Your task to perform on an android device: What's the latest video from GameXplain? Image 0: 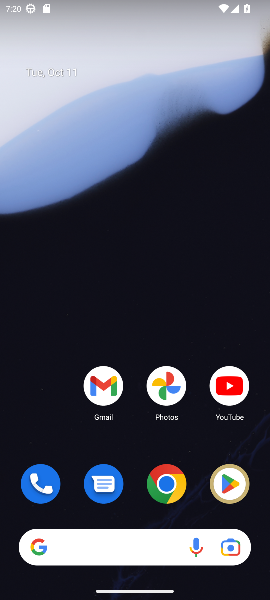
Step 0: click (167, 482)
Your task to perform on an android device: What's the latest video from GameXplain? Image 1: 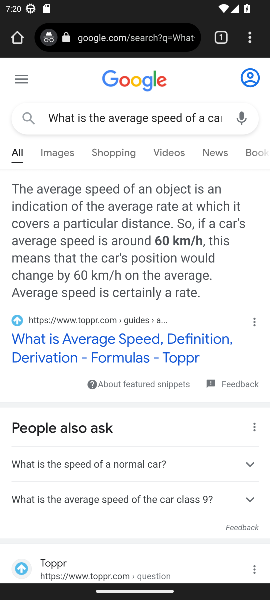
Step 1: click (149, 40)
Your task to perform on an android device: What's the latest video from GameXplain? Image 2: 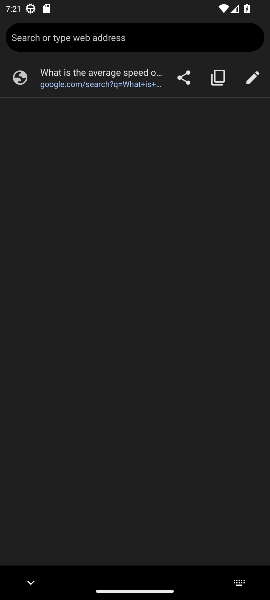
Step 2: type "What's the latest video from GameXplain?"
Your task to perform on an android device: What's the latest video from GameXplain? Image 3: 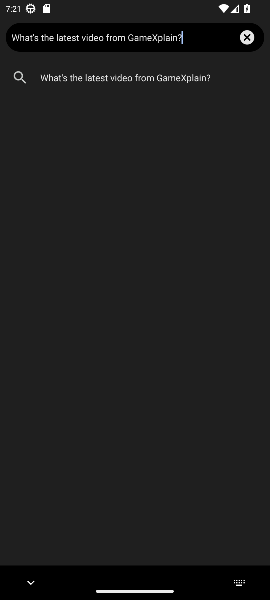
Step 3: click (143, 77)
Your task to perform on an android device: What's the latest video from GameXplain? Image 4: 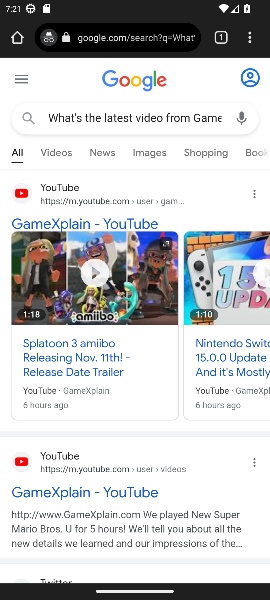
Step 4: task complete